Your task to perform on an android device: open sync settings in chrome Image 0: 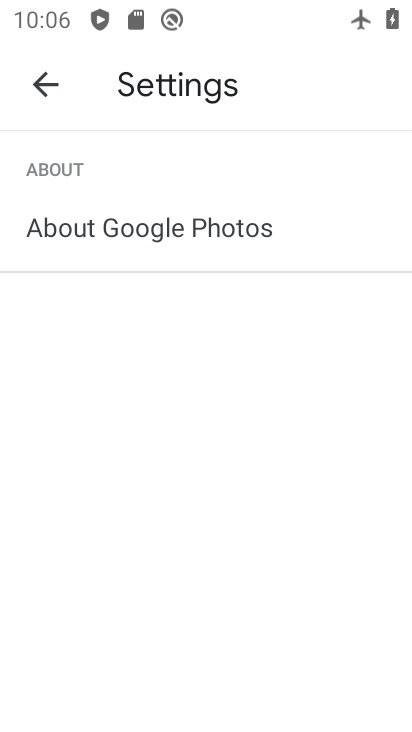
Step 0: press home button
Your task to perform on an android device: open sync settings in chrome Image 1: 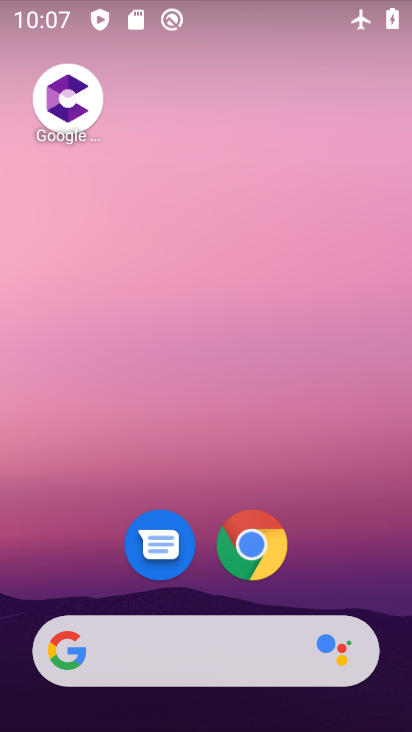
Step 1: click (246, 541)
Your task to perform on an android device: open sync settings in chrome Image 2: 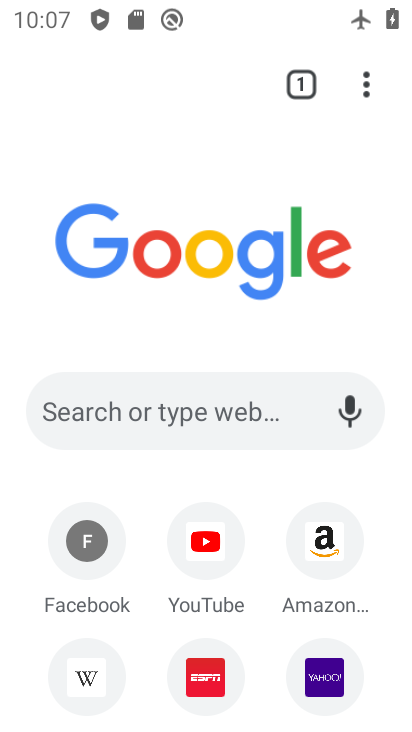
Step 2: click (365, 96)
Your task to perform on an android device: open sync settings in chrome Image 3: 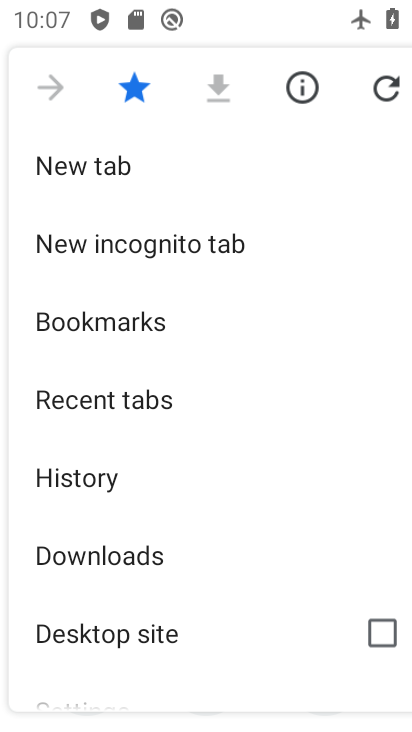
Step 3: drag from (117, 562) to (194, 197)
Your task to perform on an android device: open sync settings in chrome Image 4: 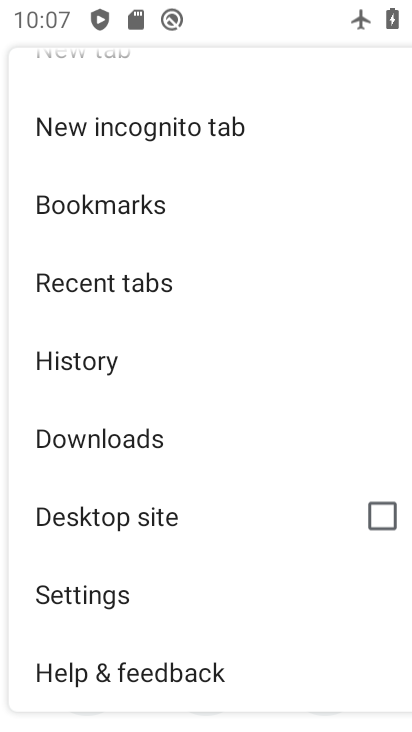
Step 4: click (97, 608)
Your task to perform on an android device: open sync settings in chrome Image 5: 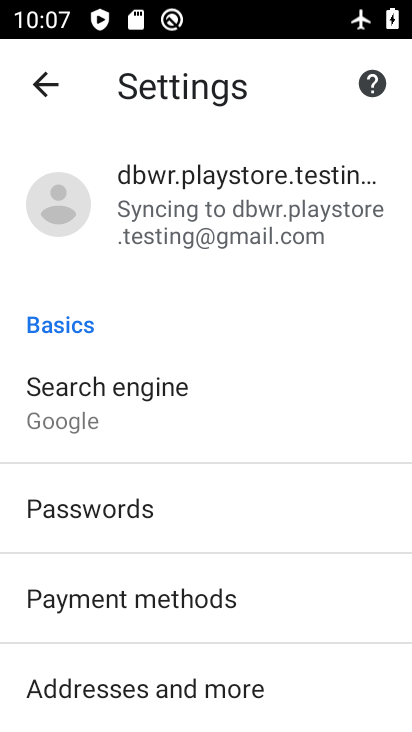
Step 5: click (219, 221)
Your task to perform on an android device: open sync settings in chrome Image 6: 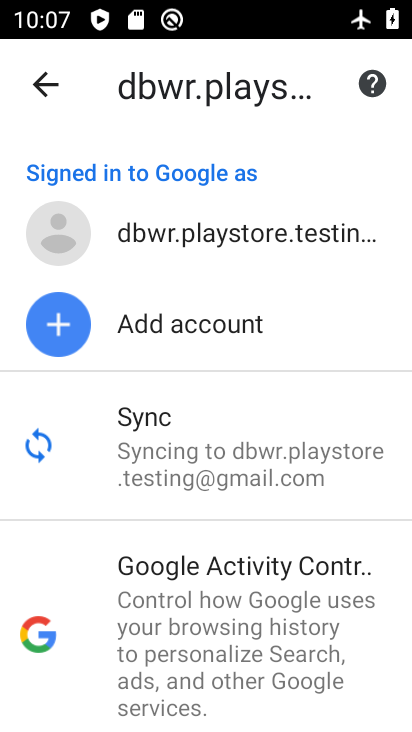
Step 6: click (42, 445)
Your task to perform on an android device: open sync settings in chrome Image 7: 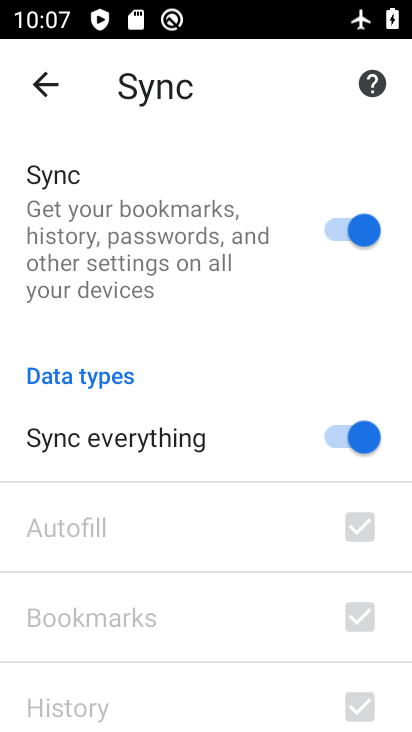
Step 7: task complete